Your task to perform on an android device: turn off location history Image 0: 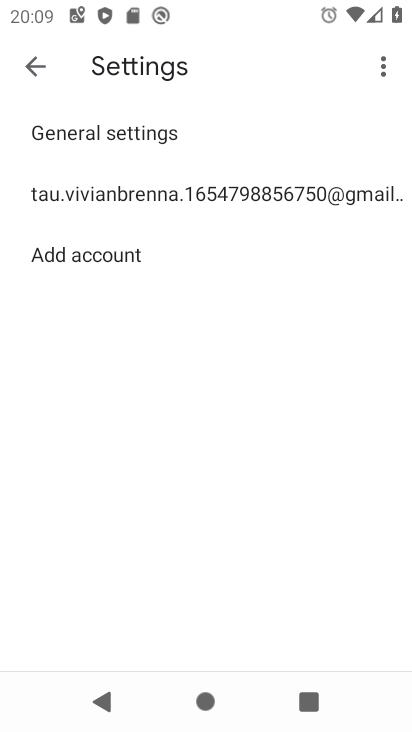
Step 0: press home button
Your task to perform on an android device: turn off location history Image 1: 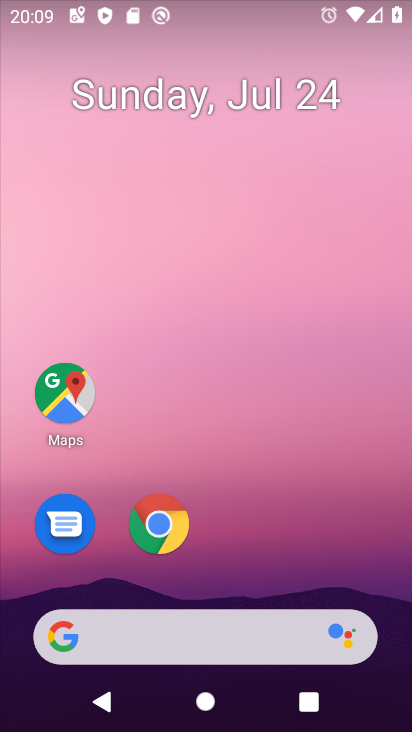
Step 1: drag from (264, 557) to (270, 30)
Your task to perform on an android device: turn off location history Image 2: 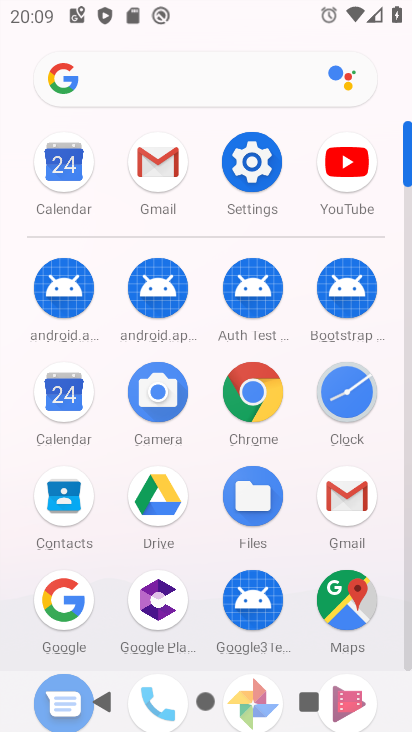
Step 2: click (249, 142)
Your task to perform on an android device: turn off location history Image 3: 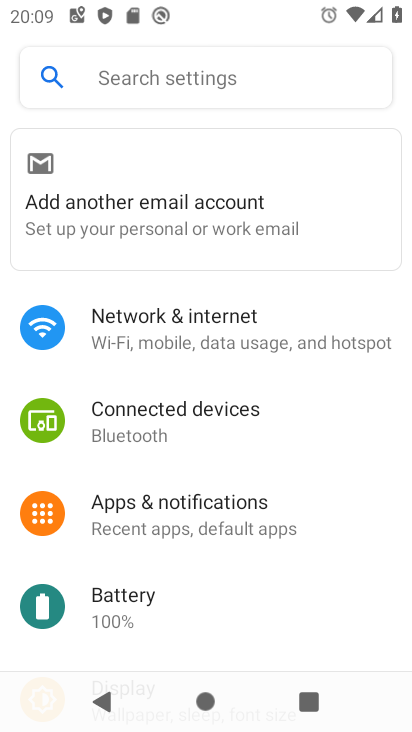
Step 3: drag from (234, 551) to (267, 143)
Your task to perform on an android device: turn off location history Image 4: 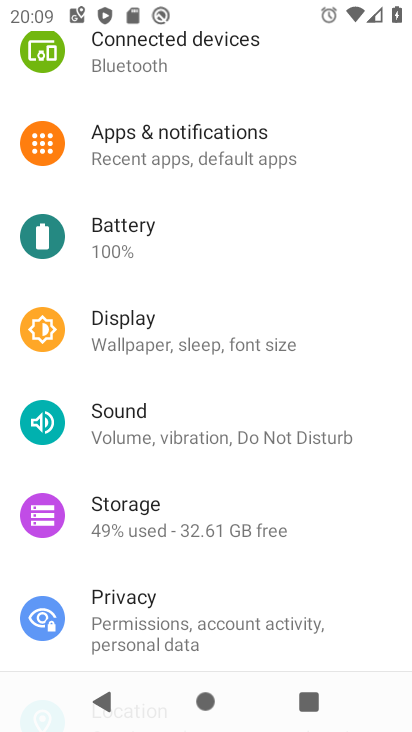
Step 4: drag from (207, 494) to (218, 166)
Your task to perform on an android device: turn off location history Image 5: 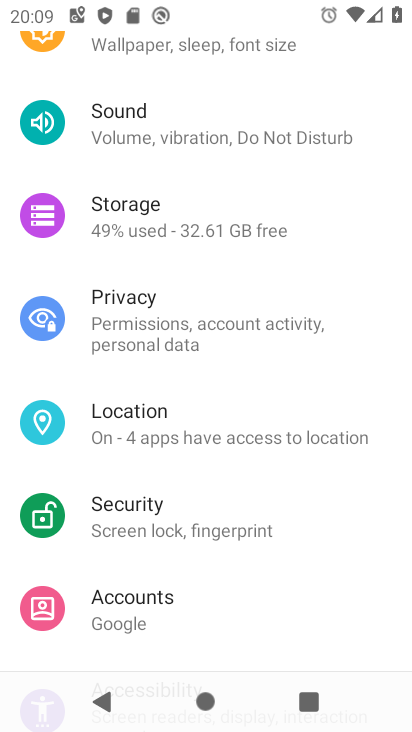
Step 5: click (201, 433)
Your task to perform on an android device: turn off location history Image 6: 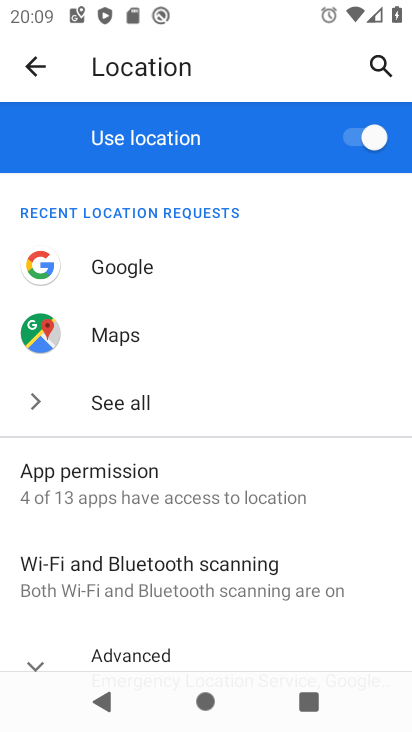
Step 6: drag from (174, 519) to (260, 171)
Your task to perform on an android device: turn off location history Image 7: 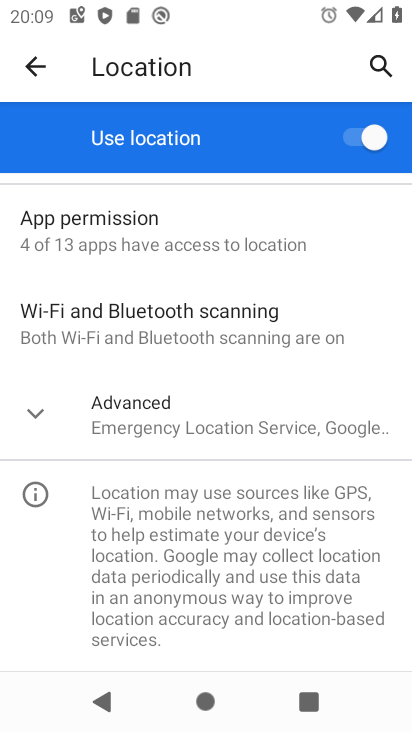
Step 7: click (31, 392)
Your task to perform on an android device: turn off location history Image 8: 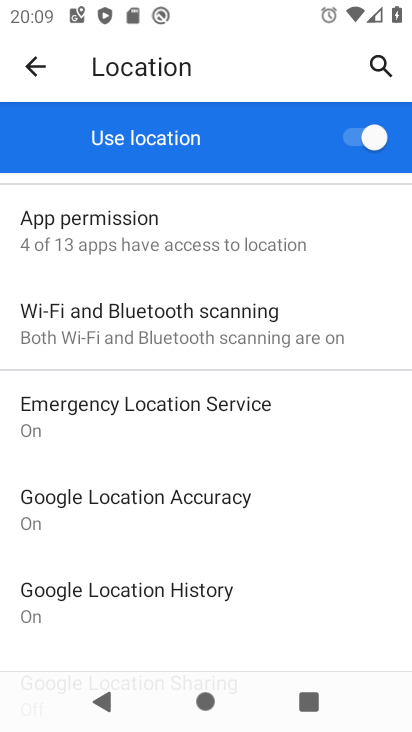
Step 8: click (145, 606)
Your task to perform on an android device: turn off location history Image 9: 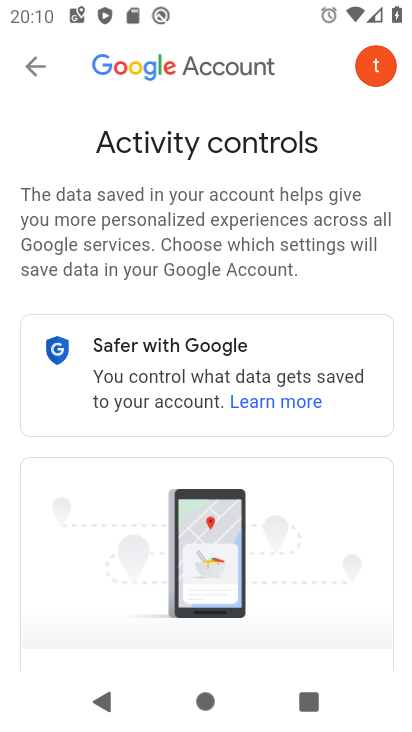
Step 9: drag from (295, 577) to (323, 174)
Your task to perform on an android device: turn off location history Image 10: 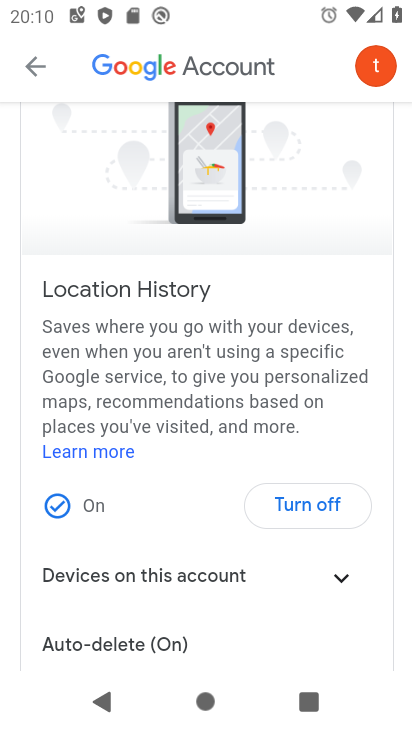
Step 10: click (311, 503)
Your task to perform on an android device: turn off location history Image 11: 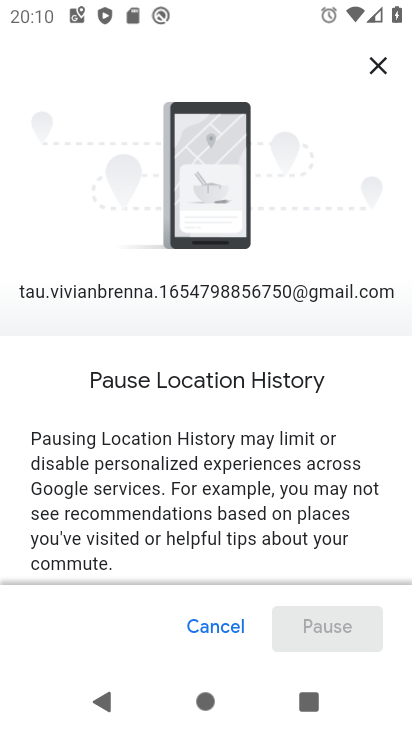
Step 11: drag from (292, 539) to (315, 69)
Your task to perform on an android device: turn off location history Image 12: 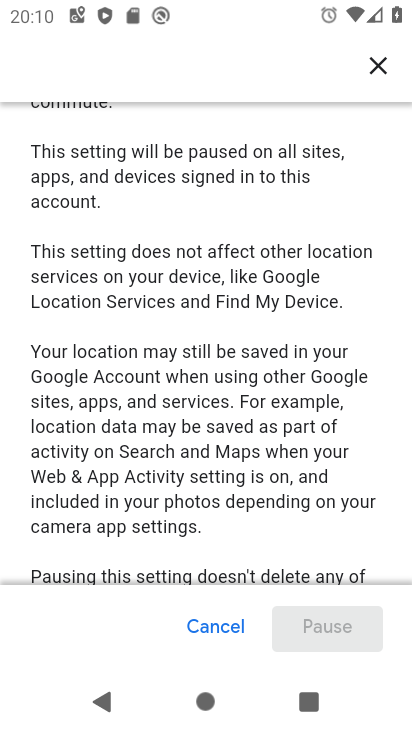
Step 12: drag from (252, 421) to (286, 53)
Your task to perform on an android device: turn off location history Image 13: 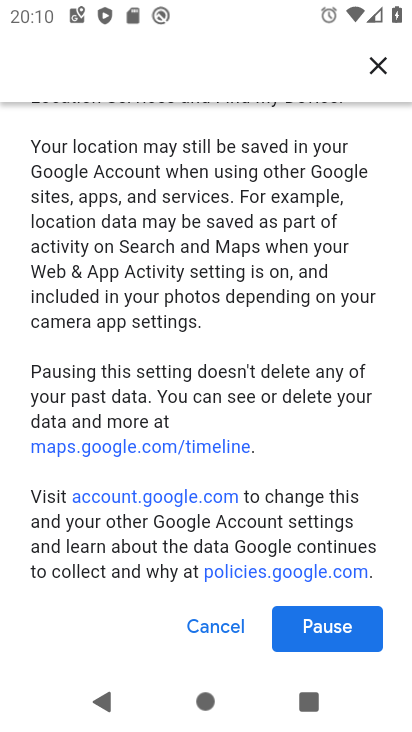
Step 13: click (343, 633)
Your task to perform on an android device: turn off location history Image 14: 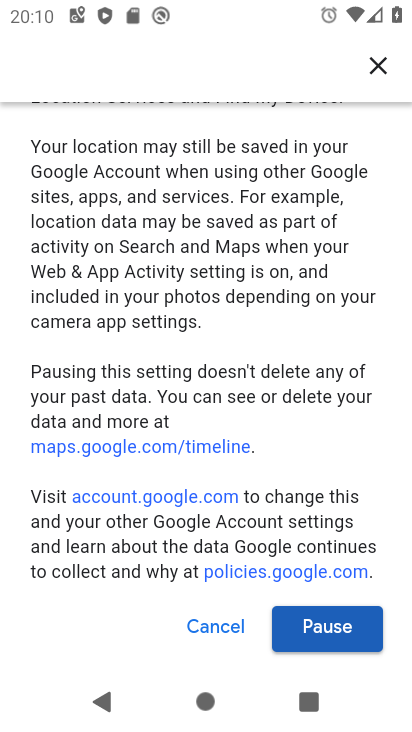
Step 14: click (343, 635)
Your task to perform on an android device: turn off location history Image 15: 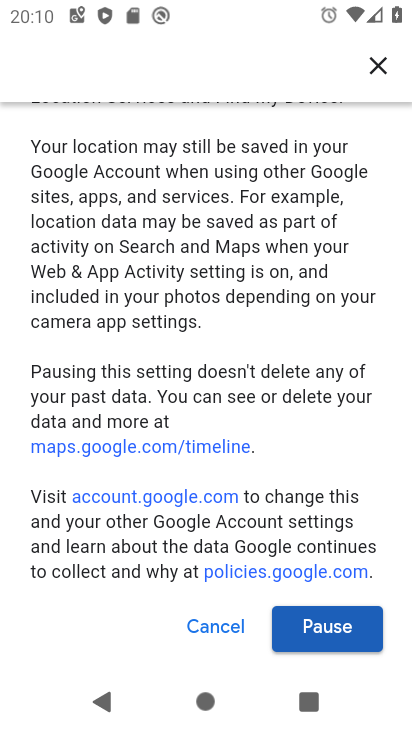
Step 15: click (343, 635)
Your task to perform on an android device: turn off location history Image 16: 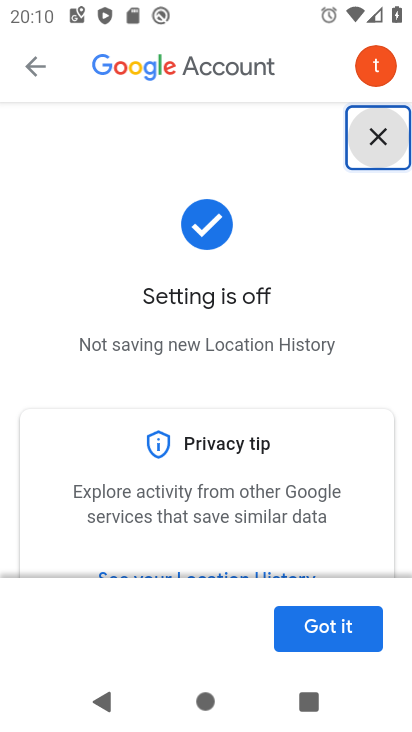
Step 16: click (329, 638)
Your task to perform on an android device: turn off location history Image 17: 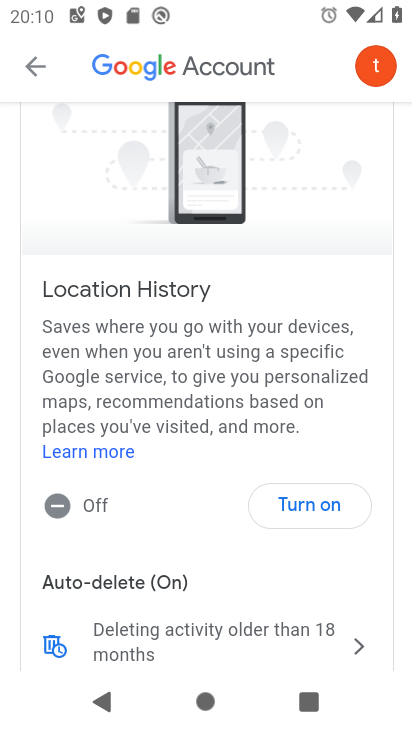
Step 17: task complete